Your task to perform on an android device: See recent photos Image 0: 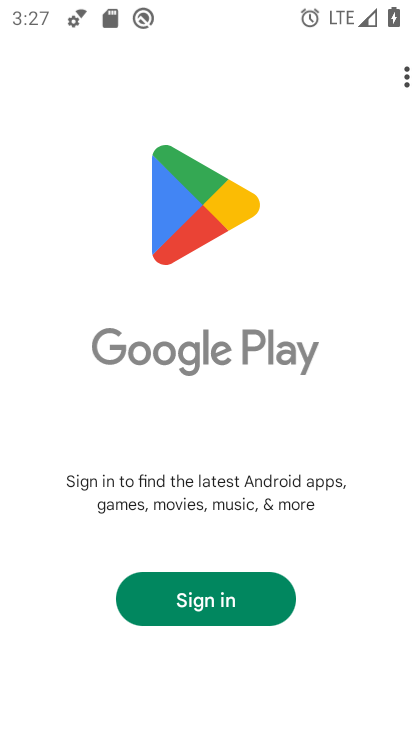
Step 0: press home button
Your task to perform on an android device: See recent photos Image 1: 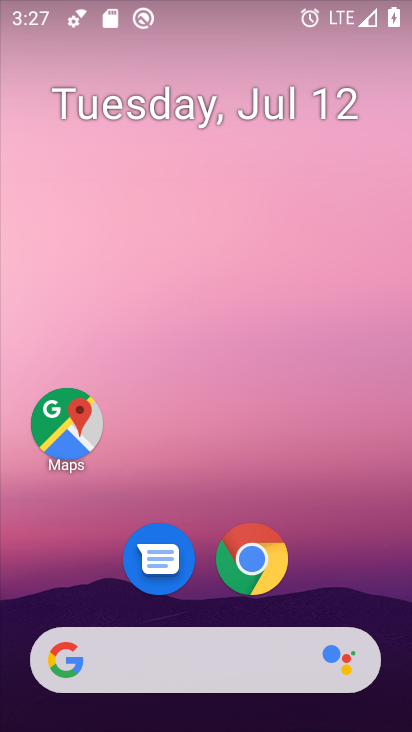
Step 1: drag from (368, 574) to (363, 237)
Your task to perform on an android device: See recent photos Image 2: 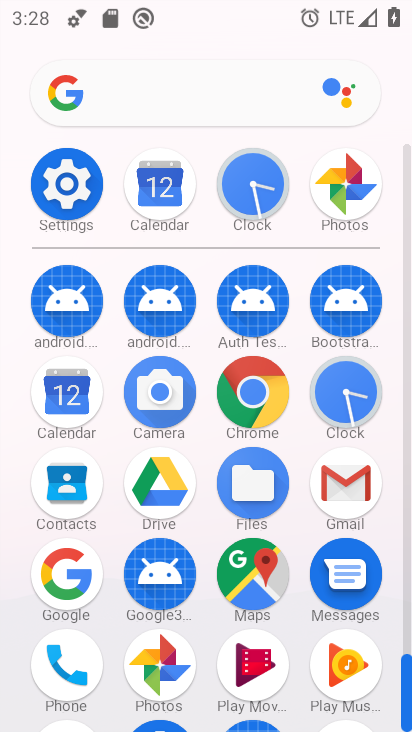
Step 2: click (346, 215)
Your task to perform on an android device: See recent photos Image 3: 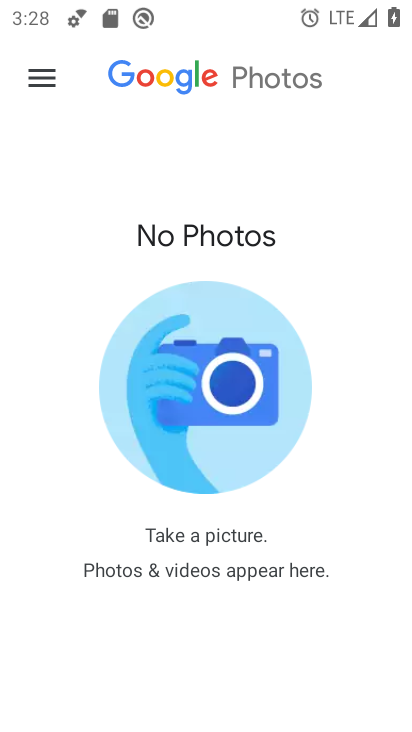
Step 3: task complete